Your task to perform on an android device: Open Google Chrome Image 0: 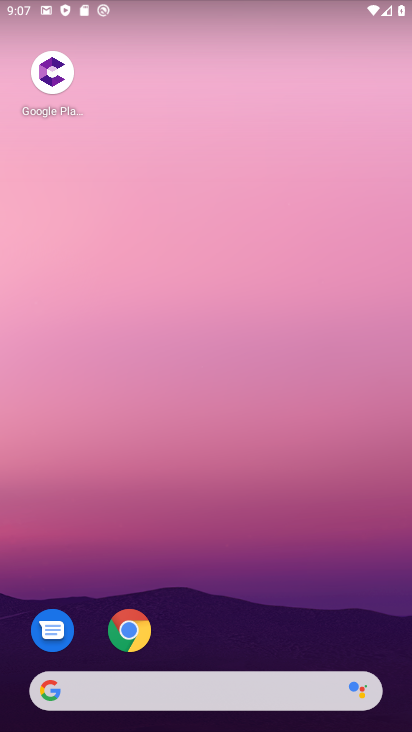
Step 0: click (122, 619)
Your task to perform on an android device: Open Google Chrome Image 1: 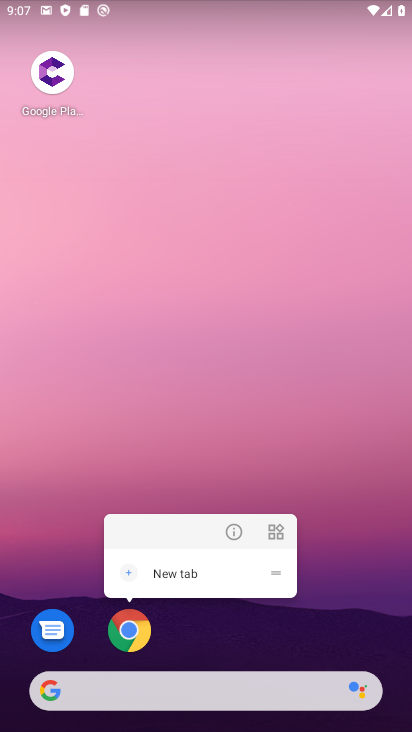
Step 1: click (285, 641)
Your task to perform on an android device: Open Google Chrome Image 2: 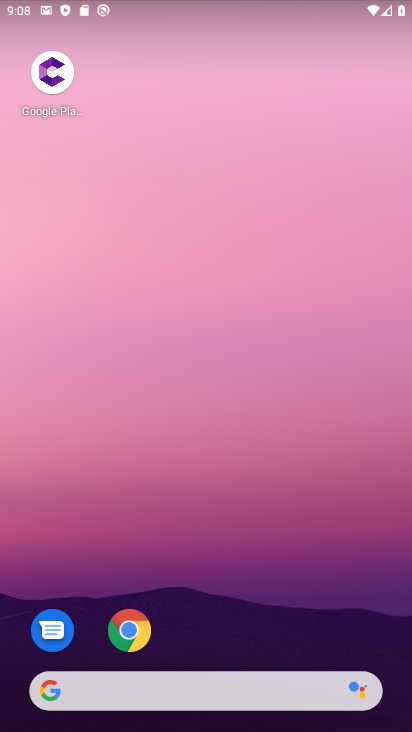
Step 2: click (128, 627)
Your task to perform on an android device: Open Google Chrome Image 3: 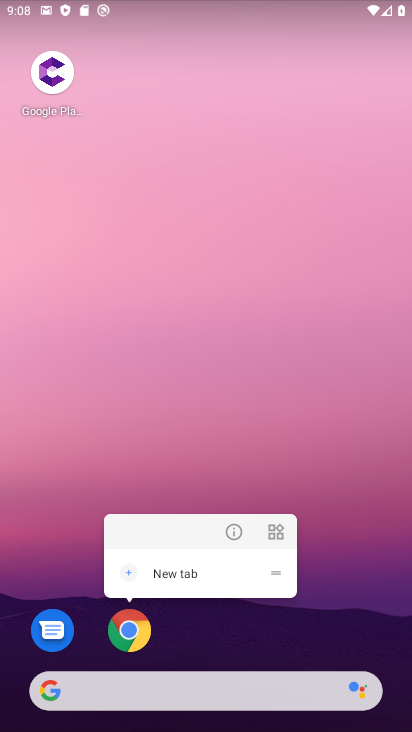
Step 3: click (128, 627)
Your task to perform on an android device: Open Google Chrome Image 4: 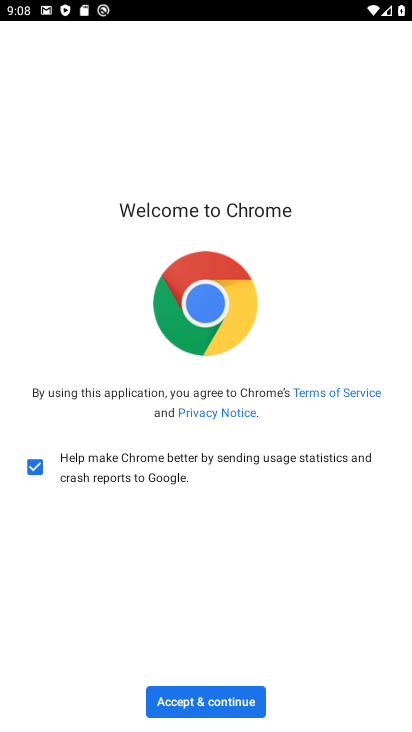
Step 4: click (190, 690)
Your task to perform on an android device: Open Google Chrome Image 5: 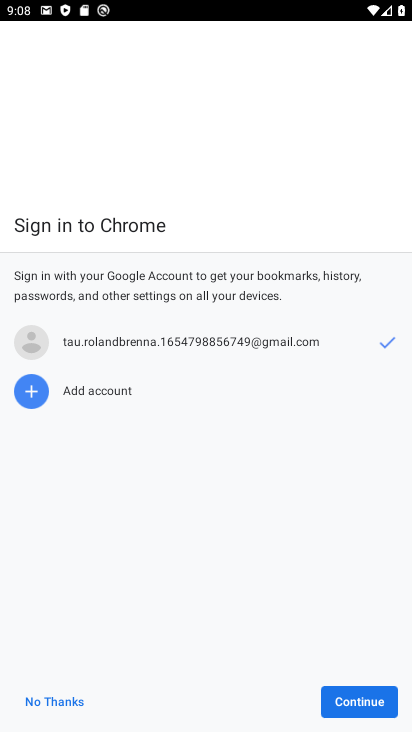
Step 5: click (354, 699)
Your task to perform on an android device: Open Google Chrome Image 6: 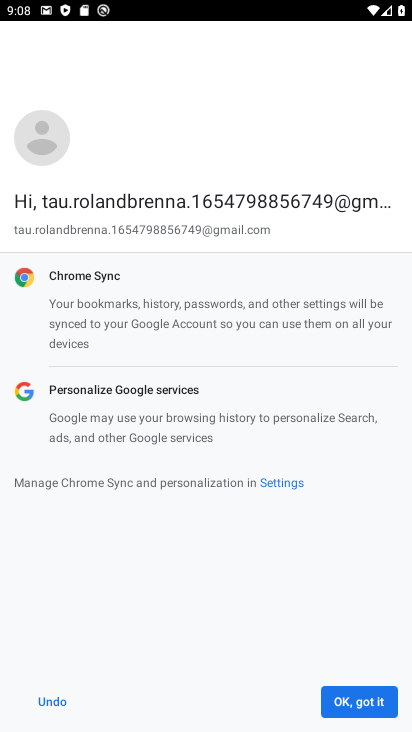
Step 6: click (349, 707)
Your task to perform on an android device: Open Google Chrome Image 7: 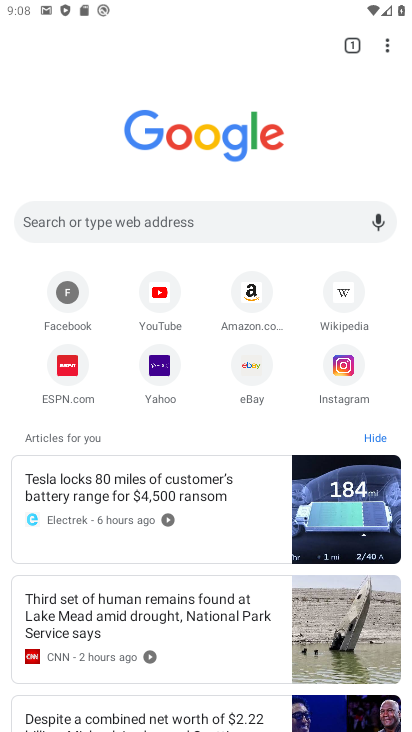
Step 7: task complete